Your task to perform on an android device: Set the phone to "Do not disturb". Image 0: 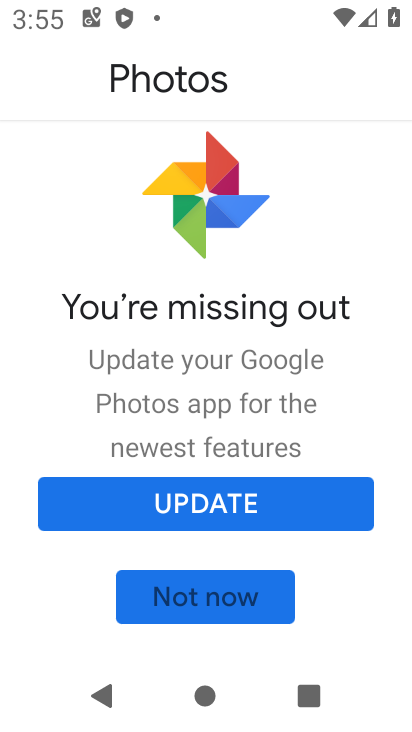
Step 0: press back button
Your task to perform on an android device: Set the phone to "Do not disturb". Image 1: 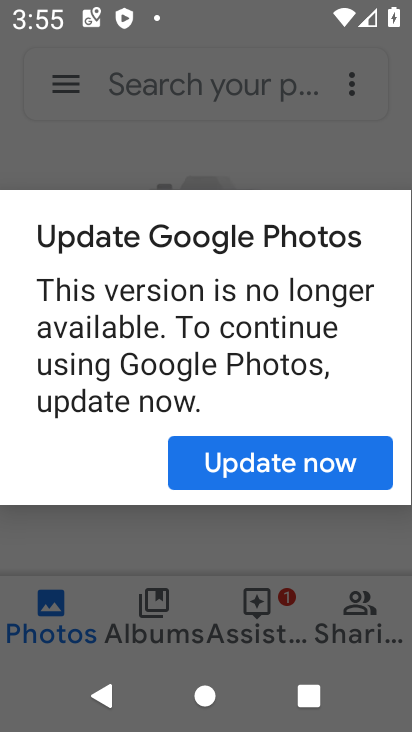
Step 1: press home button
Your task to perform on an android device: Set the phone to "Do not disturb". Image 2: 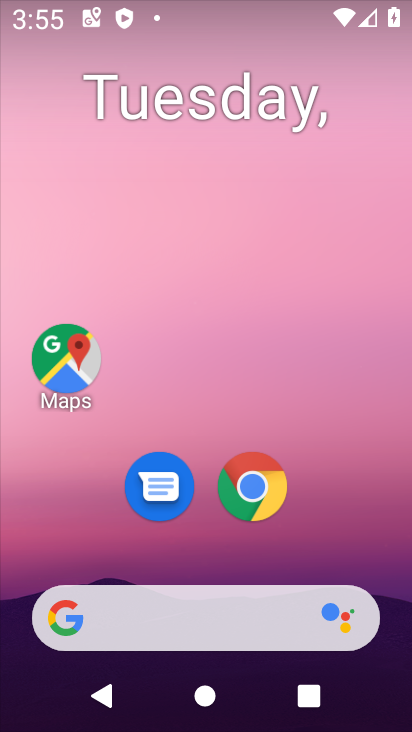
Step 2: drag from (245, 10) to (222, 590)
Your task to perform on an android device: Set the phone to "Do not disturb". Image 3: 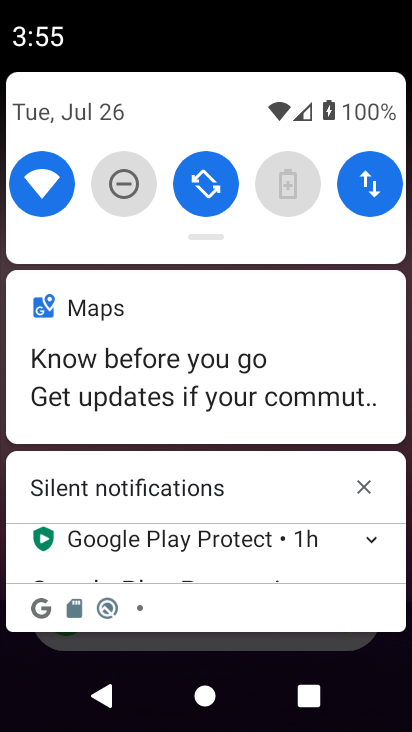
Step 3: click (123, 176)
Your task to perform on an android device: Set the phone to "Do not disturb". Image 4: 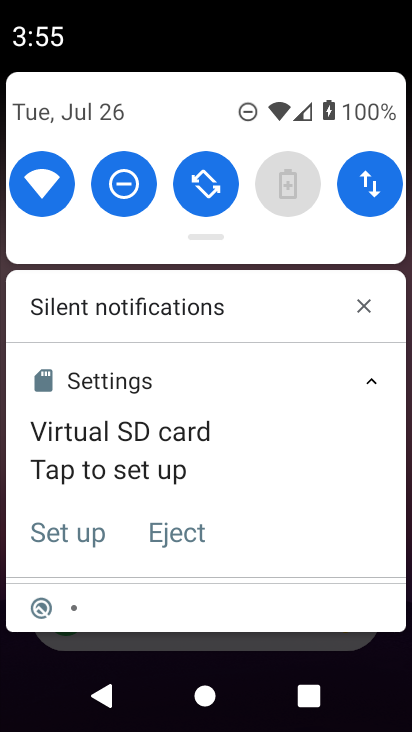
Step 4: task complete